Your task to perform on an android device: What's the weather? Image 0: 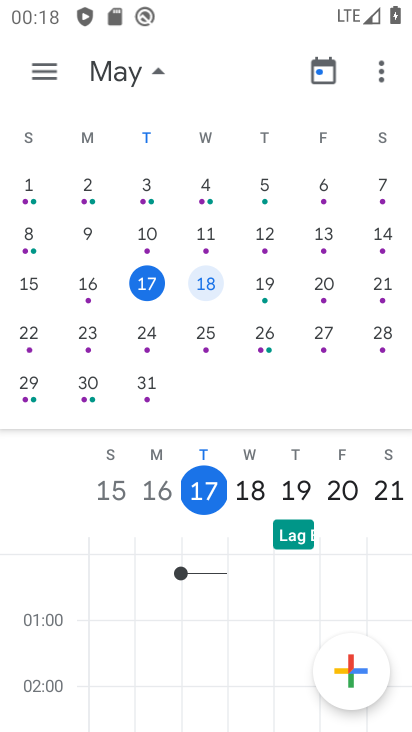
Step 0: press home button
Your task to perform on an android device: What's the weather? Image 1: 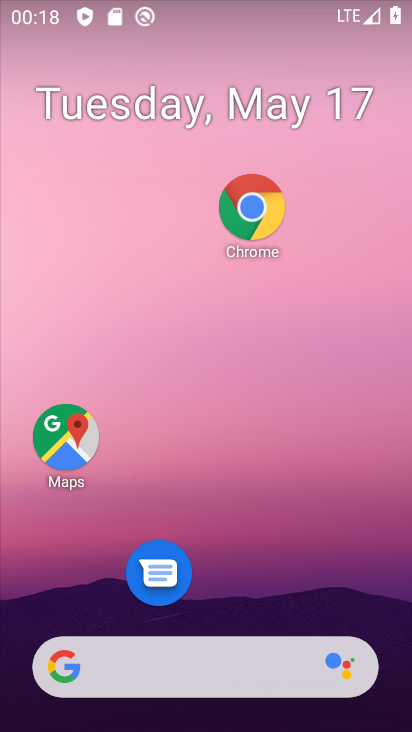
Step 1: drag from (309, 668) to (274, 73)
Your task to perform on an android device: What's the weather? Image 2: 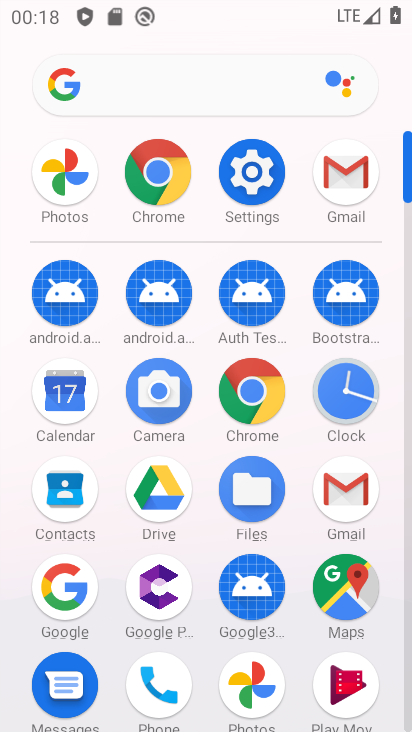
Step 2: click (274, 391)
Your task to perform on an android device: What's the weather? Image 3: 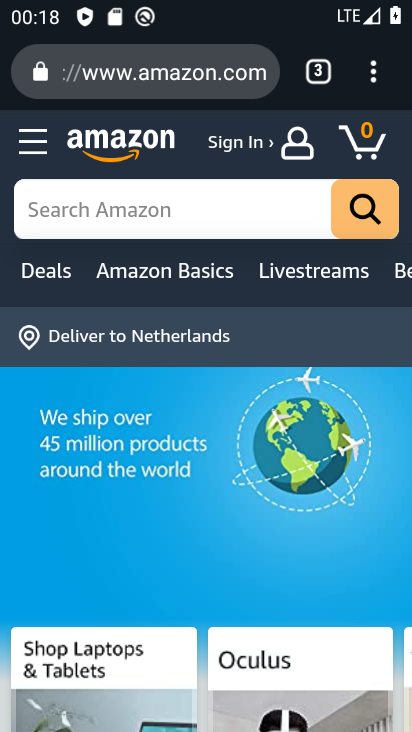
Step 3: click (225, 74)
Your task to perform on an android device: What's the weather? Image 4: 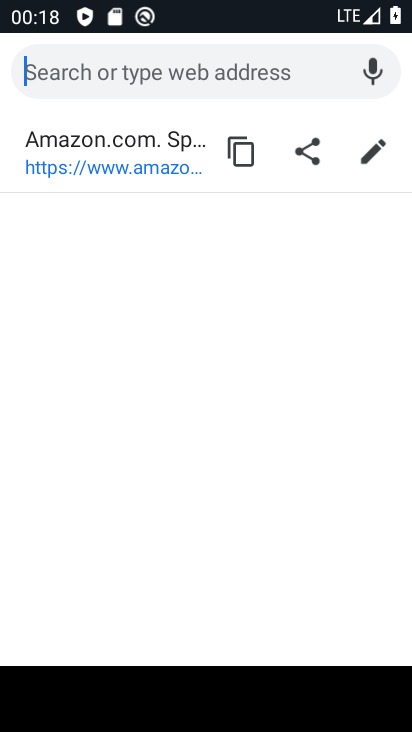
Step 4: type "whats the weather"
Your task to perform on an android device: What's the weather? Image 5: 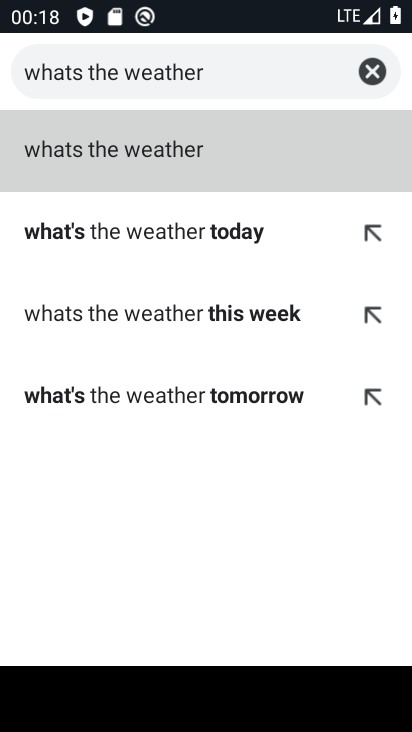
Step 5: click (167, 126)
Your task to perform on an android device: What's the weather? Image 6: 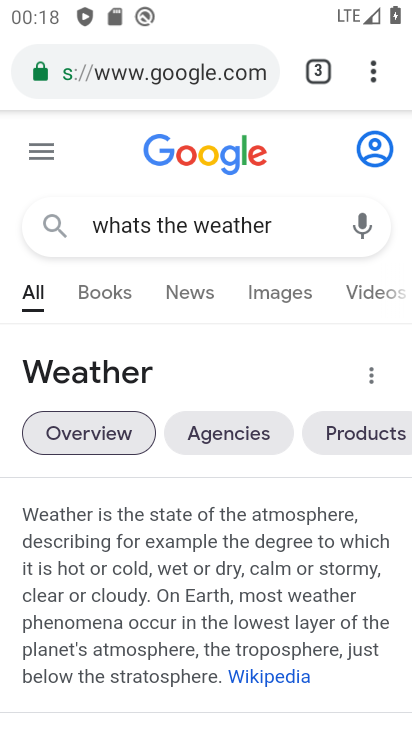
Step 6: task complete